Your task to perform on an android device: toggle pop-ups in chrome Image 0: 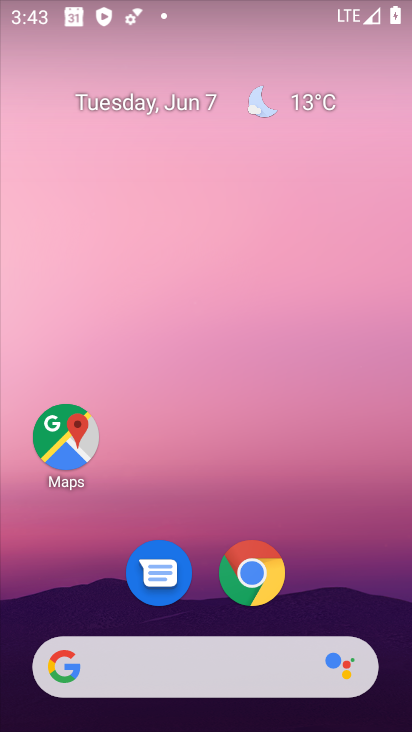
Step 0: click (257, 588)
Your task to perform on an android device: toggle pop-ups in chrome Image 1: 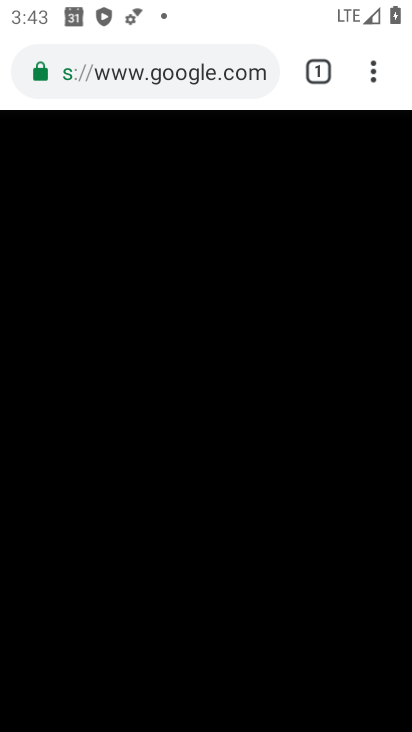
Step 1: click (376, 69)
Your task to perform on an android device: toggle pop-ups in chrome Image 2: 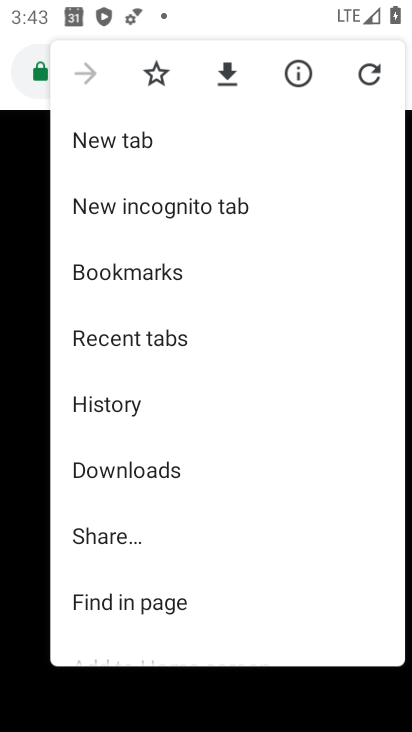
Step 2: drag from (214, 606) to (182, 221)
Your task to perform on an android device: toggle pop-ups in chrome Image 3: 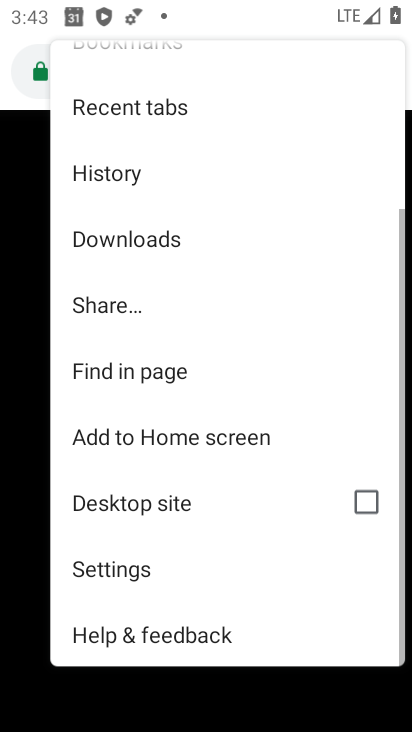
Step 3: click (202, 563)
Your task to perform on an android device: toggle pop-ups in chrome Image 4: 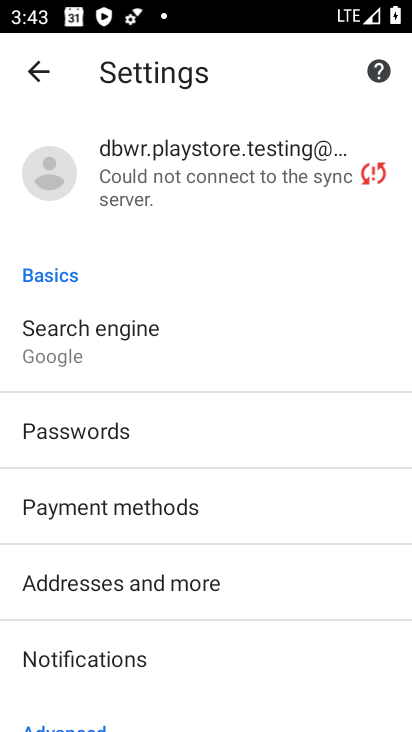
Step 4: drag from (197, 676) to (184, 253)
Your task to perform on an android device: toggle pop-ups in chrome Image 5: 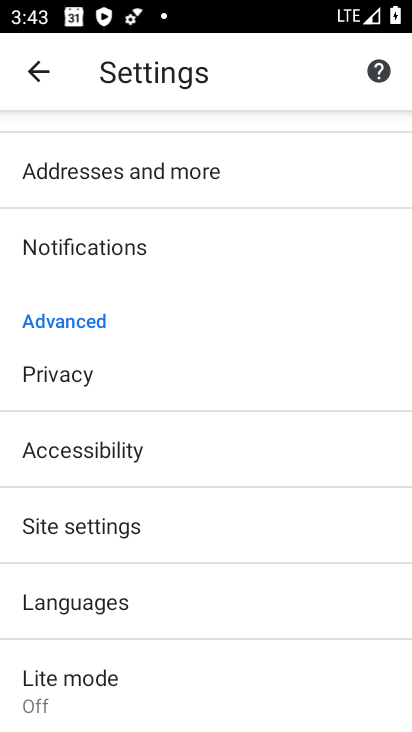
Step 5: click (148, 538)
Your task to perform on an android device: toggle pop-ups in chrome Image 6: 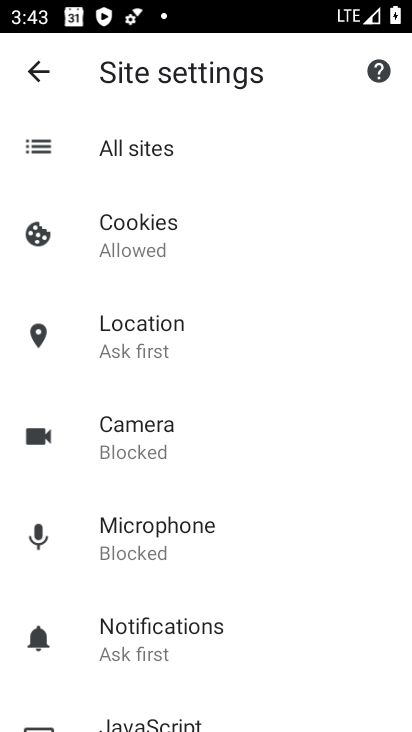
Step 6: drag from (208, 686) to (179, 224)
Your task to perform on an android device: toggle pop-ups in chrome Image 7: 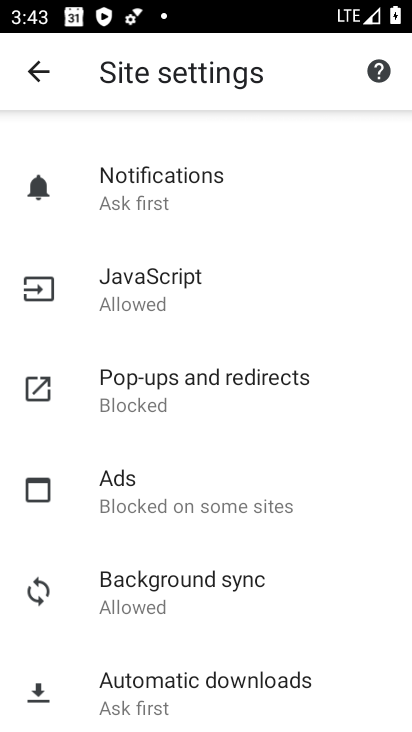
Step 7: click (228, 413)
Your task to perform on an android device: toggle pop-ups in chrome Image 8: 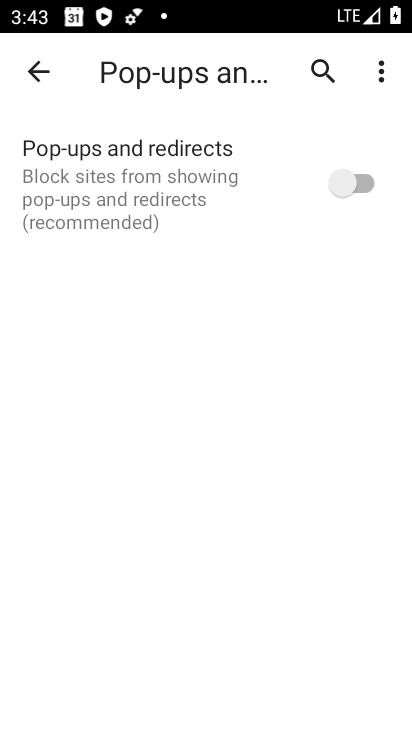
Step 8: click (349, 204)
Your task to perform on an android device: toggle pop-ups in chrome Image 9: 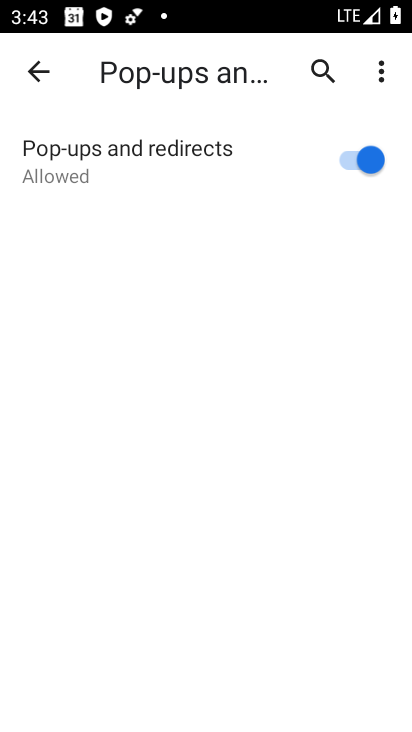
Step 9: task complete